Your task to perform on an android device: open app "Skype" (install if not already installed) Image 0: 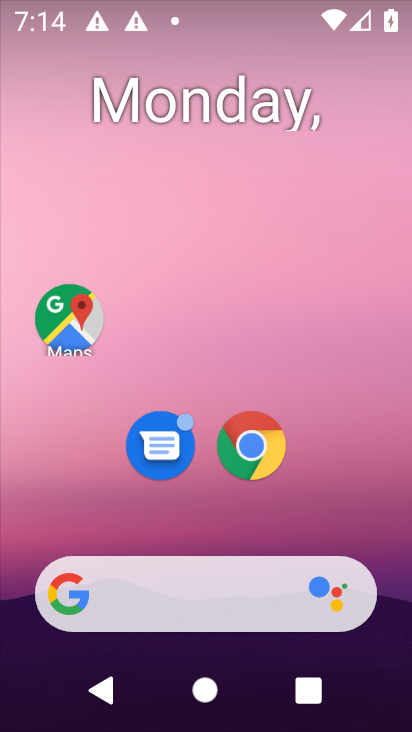
Step 0: drag from (401, 602) to (221, 54)
Your task to perform on an android device: open app "Skype" (install if not already installed) Image 1: 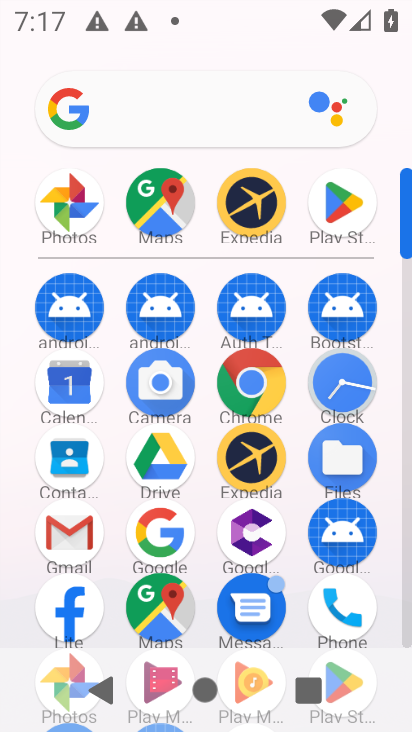
Step 1: click (364, 208)
Your task to perform on an android device: open app "Skype" (install if not already installed) Image 2: 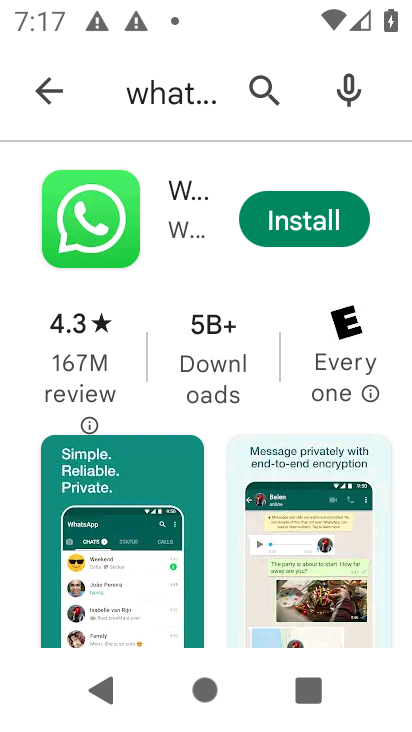
Step 2: press back button
Your task to perform on an android device: open app "Skype" (install if not already installed) Image 3: 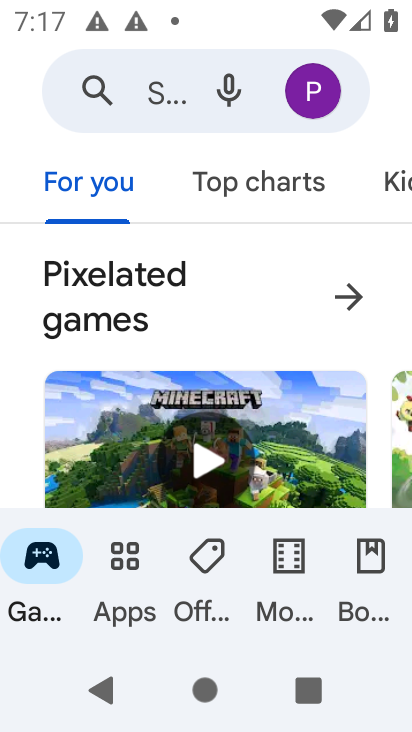
Step 3: click (141, 85)
Your task to perform on an android device: open app "Skype" (install if not already installed) Image 4: 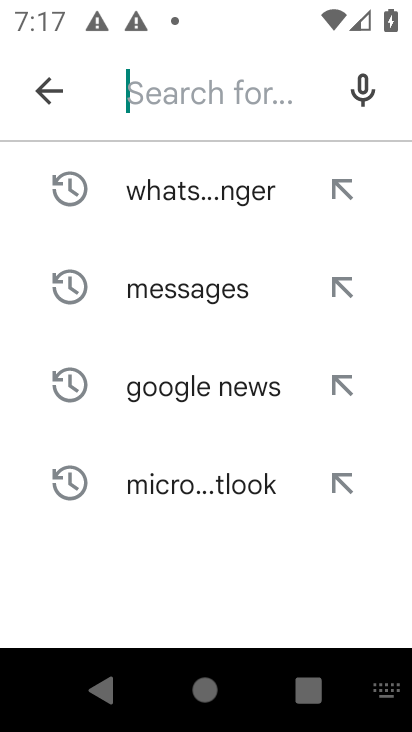
Step 4: type "Skype"
Your task to perform on an android device: open app "Skype" (install if not already installed) Image 5: 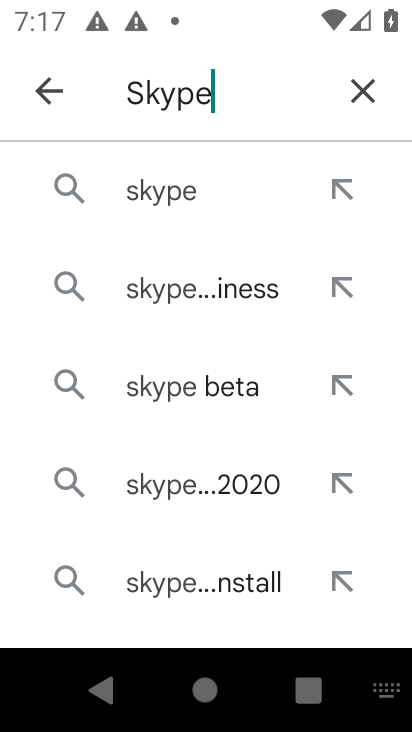
Step 5: click (180, 191)
Your task to perform on an android device: open app "Skype" (install if not already installed) Image 6: 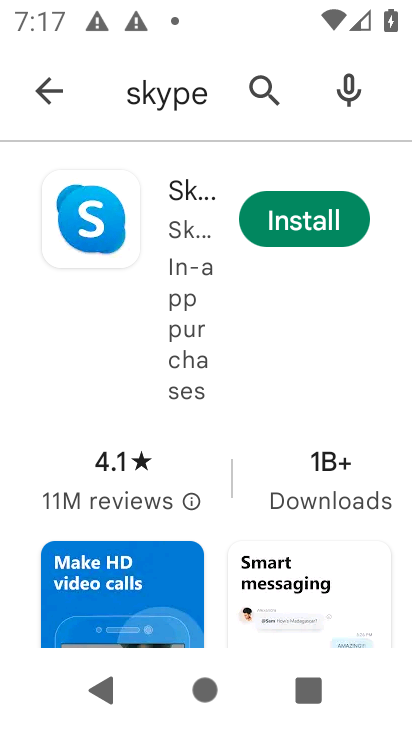
Step 6: task complete